Your task to perform on an android device: Go to display settings Image 0: 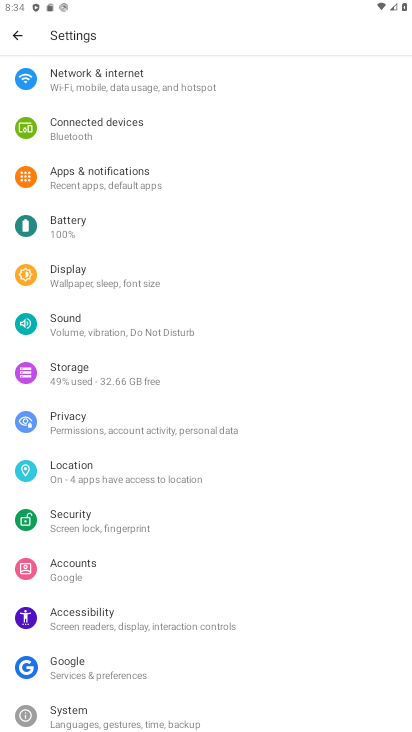
Step 0: press home button
Your task to perform on an android device: Go to display settings Image 1: 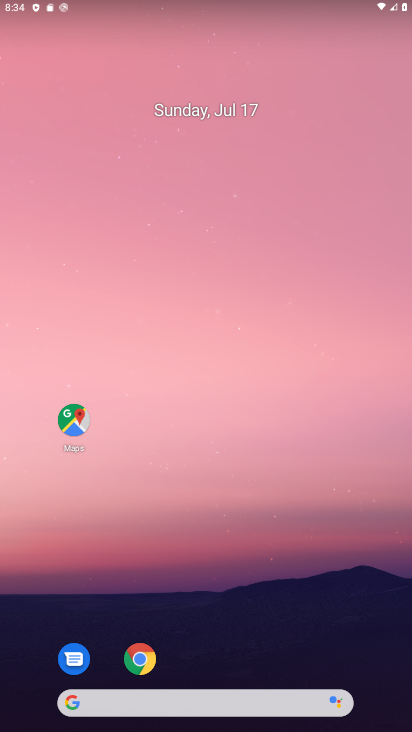
Step 1: drag from (199, 708) to (292, 89)
Your task to perform on an android device: Go to display settings Image 2: 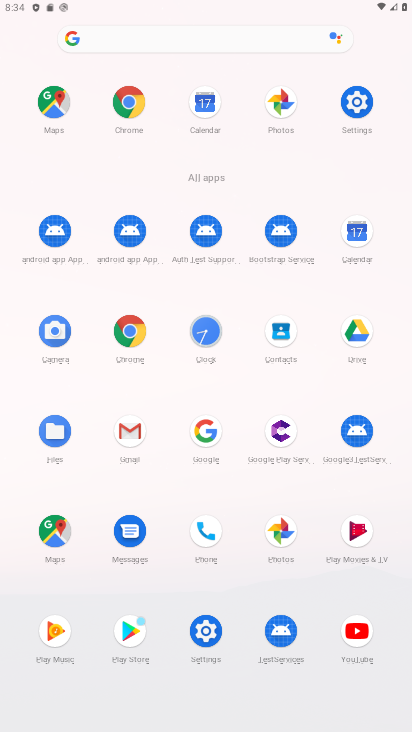
Step 2: click (356, 100)
Your task to perform on an android device: Go to display settings Image 3: 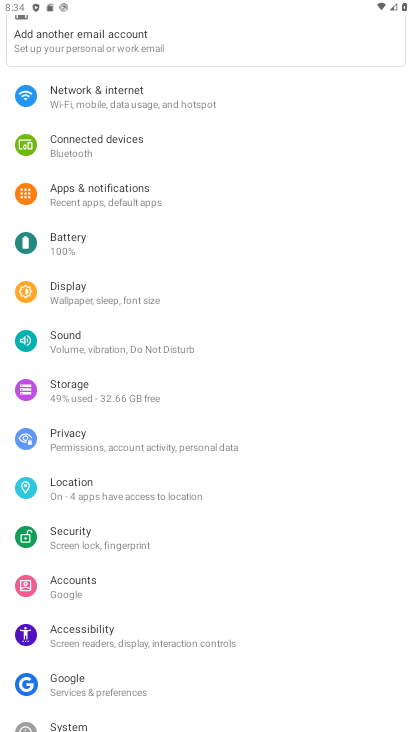
Step 3: click (154, 300)
Your task to perform on an android device: Go to display settings Image 4: 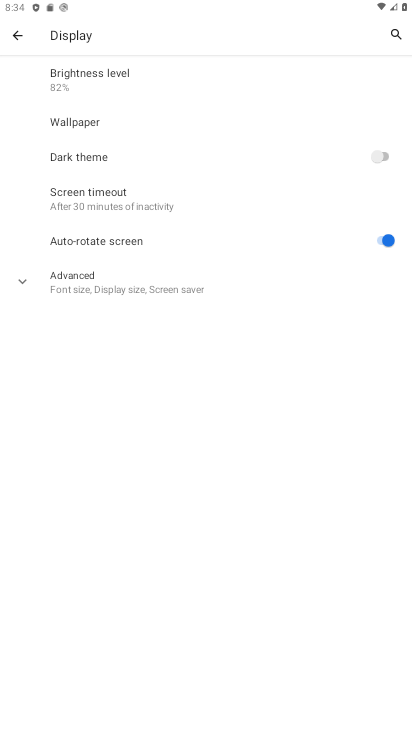
Step 4: task complete